Your task to perform on an android device: Open the calendar and show me this week's events Image 0: 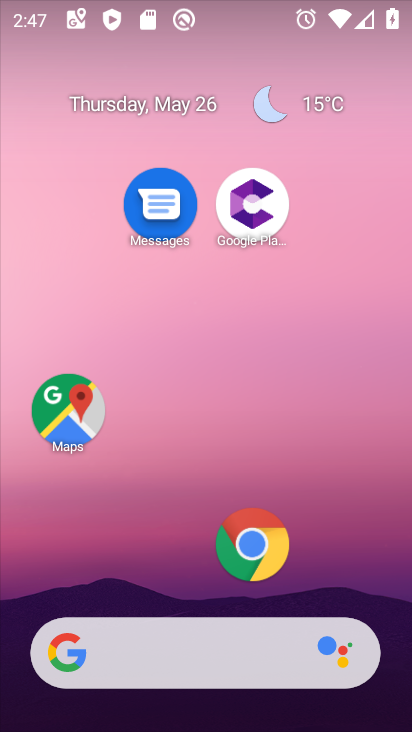
Step 0: click (198, 112)
Your task to perform on an android device: Open the calendar and show me this week's events Image 1: 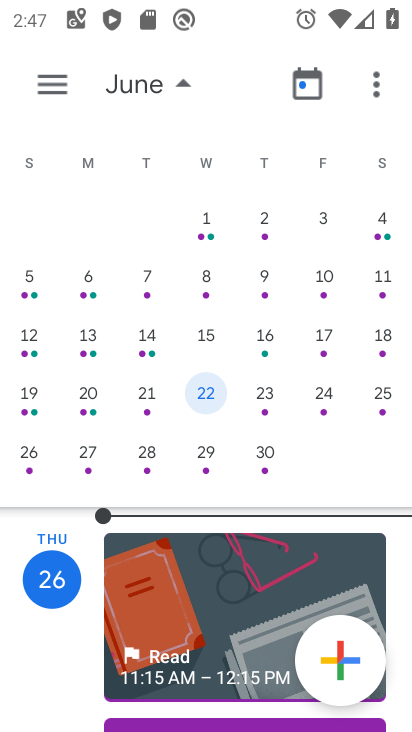
Step 1: click (48, 73)
Your task to perform on an android device: Open the calendar and show me this week's events Image 2: 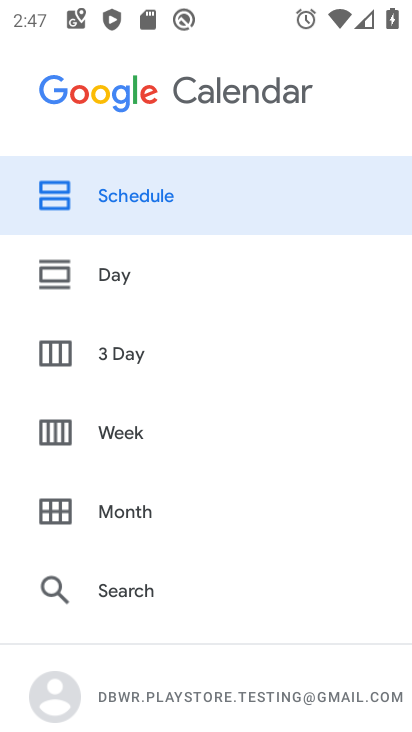
Step 2: drag from (83, 639) to (122, 132)
Your task to perform on an android device: Open the calendar and show me this week's events Image 3: 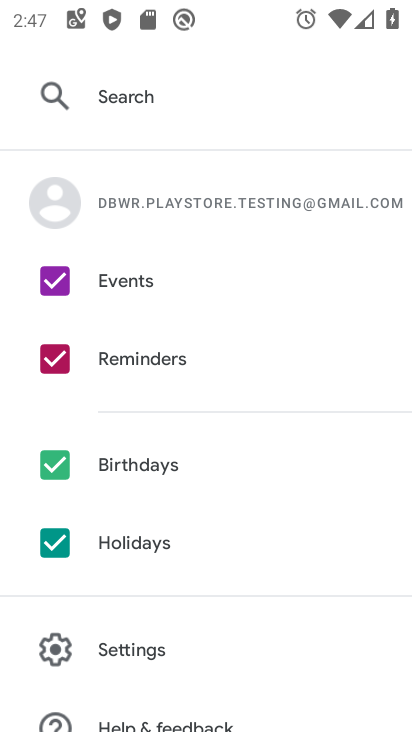
Step 3: click (44, 349)
Your task to perform on an android device: Open the calendar and show me this week's events Image 4: 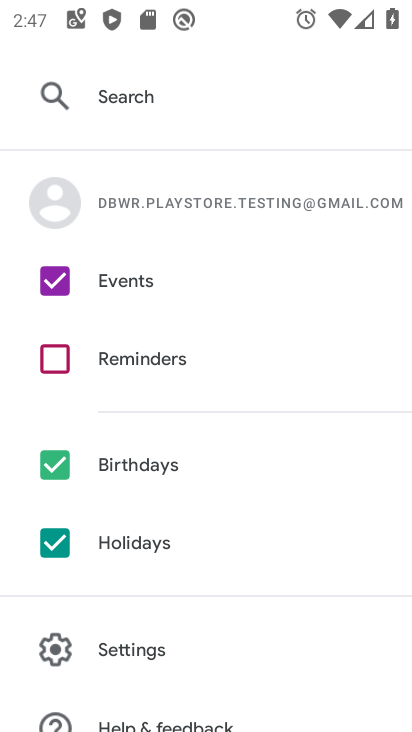
Step 4: click (56, 464)
Your task to perform on an android device: Open the calendar and show me this week's events Image 5: 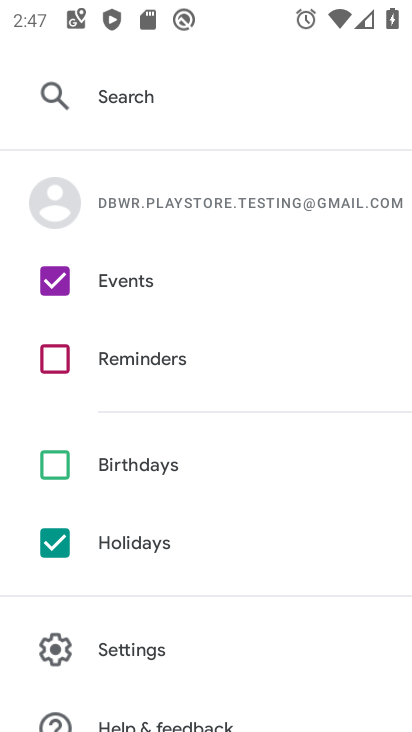
Step 5: click (56, 532)
Your task to perform on an android device: Open the calendar and show me this week's events Image 6: 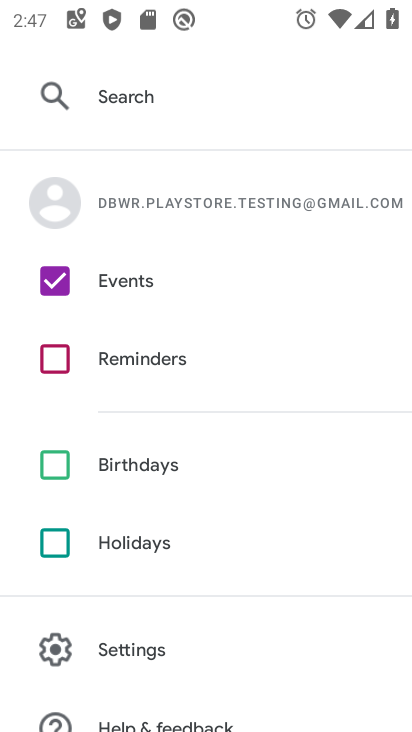
Step 6: drag from (220, 159) to (186, 629)
Your task to perform on an android device: Open the calendar and show me this week's events Image 7: 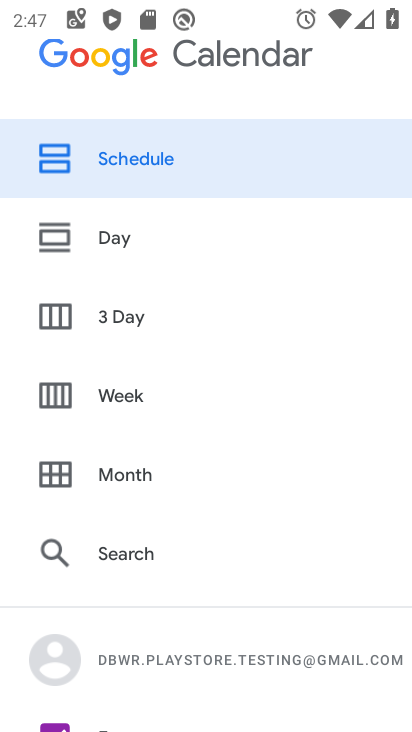
Step 7: click (153, 388)
Your task to perform on an android device: Open the calendar and show me this week's events Image 8: 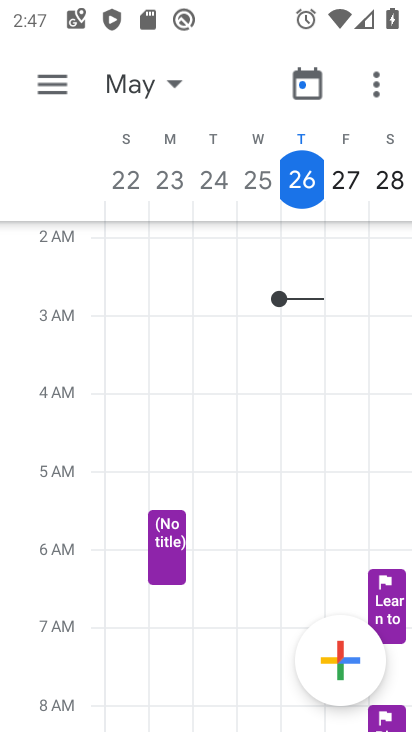
Step 8: task complete